Your task to perform on an android device: Open the Play Movies app and select the watchlist tab. Image 0: 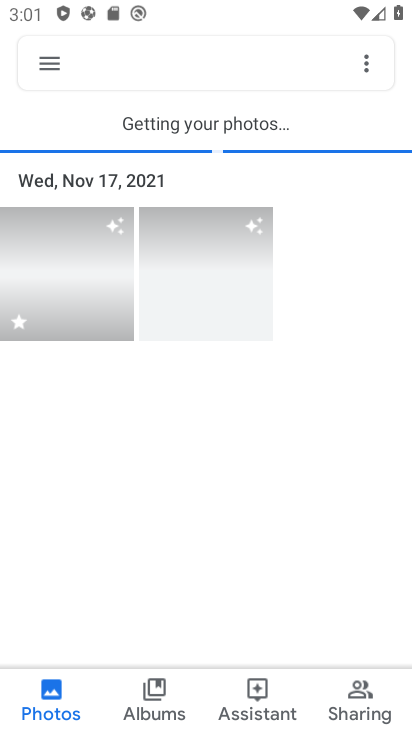
Step 0: press home button
Your task to perform on an android device: Open the Play Movies app and select the watchlist tab. Image 1: 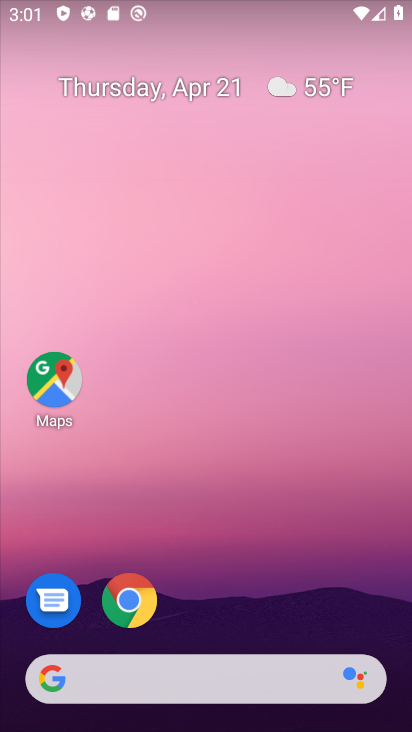
Step 1: drag from (121, 676) to (307, 83)
Your task to perform on an android device: Open the Play Movies app and select the watchlist tab. Image 2: 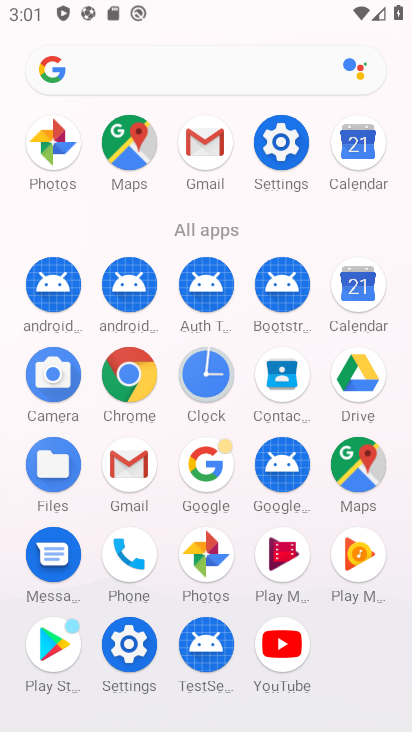
Step 2: click (288, 558)
Your task to perform on an android device: Open the Play Movies app and select the watchlist tab. Image 3: 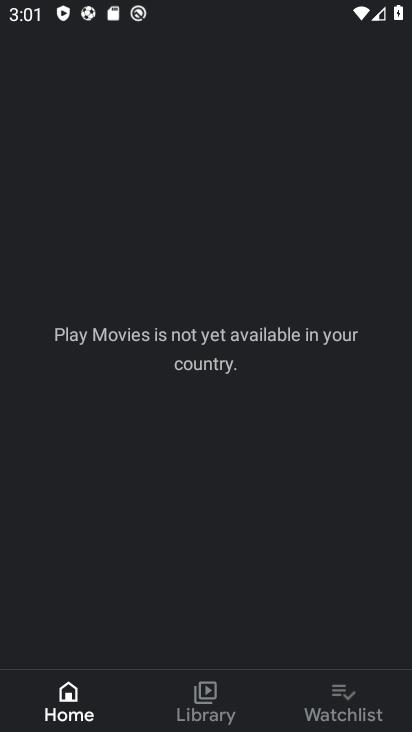
Step 3: click (342, 707)
Your task to perform on an android device: Open the Play Movies app and select the watchlist tab. Image 4: 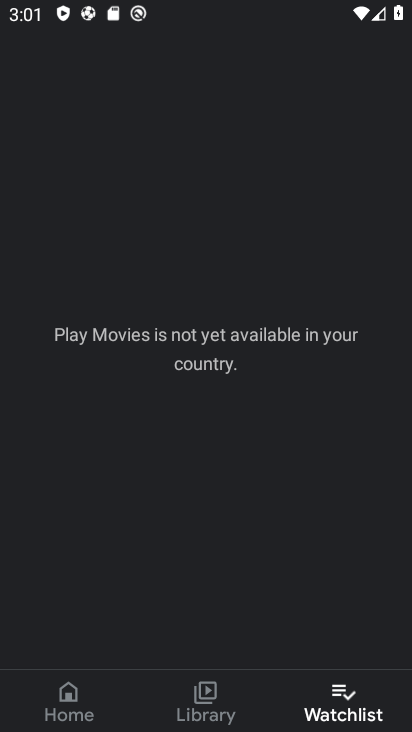
Step 4: task complete